Your task to perform on an android device: Is it going to rain this weekend? Image 0: 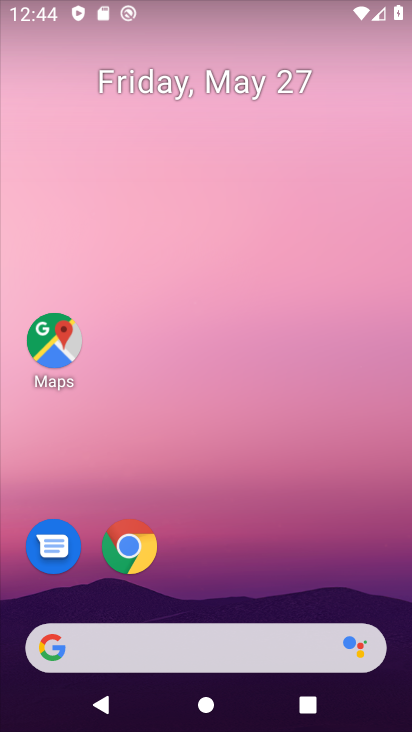
Step 0: drag from (235, 639) to (230, 269)
Your task to perform on an android device: Is it going to rain this weekend? Image 1: 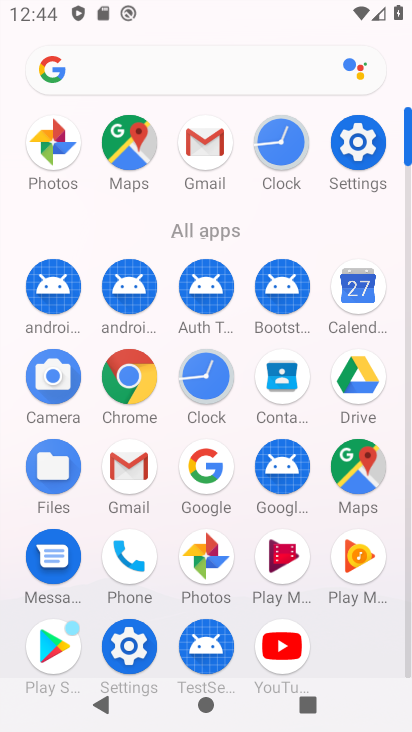
Step 1: click (131, 75)
Your task to perform on an android device: Is it going to rain this weekend? Image 2: 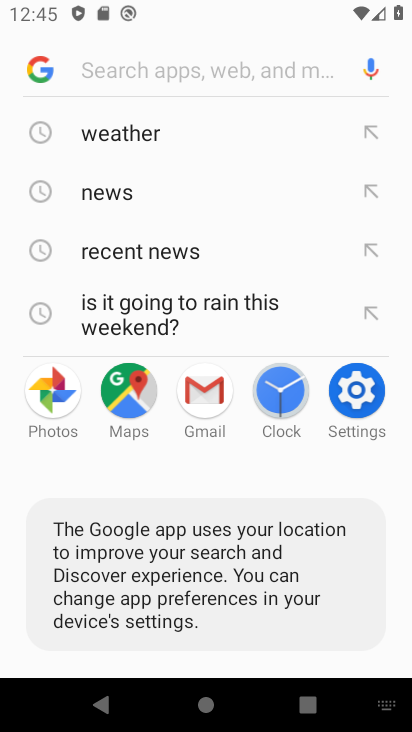
Step 2: click (133, 140)
Your task to perform on an android device: Is it going to rain this weekend? Image 3: 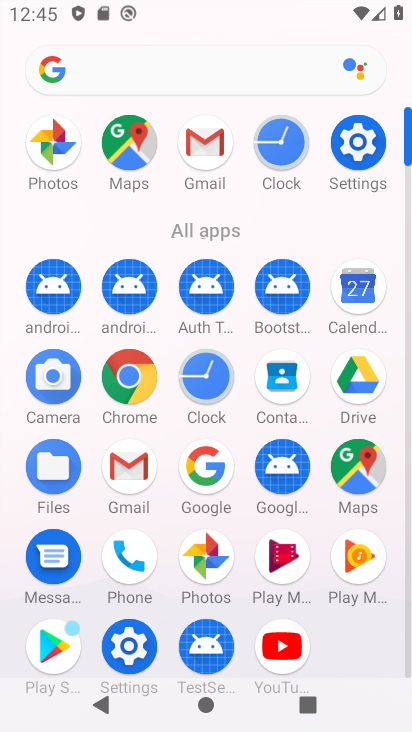
Step 3: click (167, 74)
Your task to perform on an android device: Is it going to rain this weekend? Image 4: 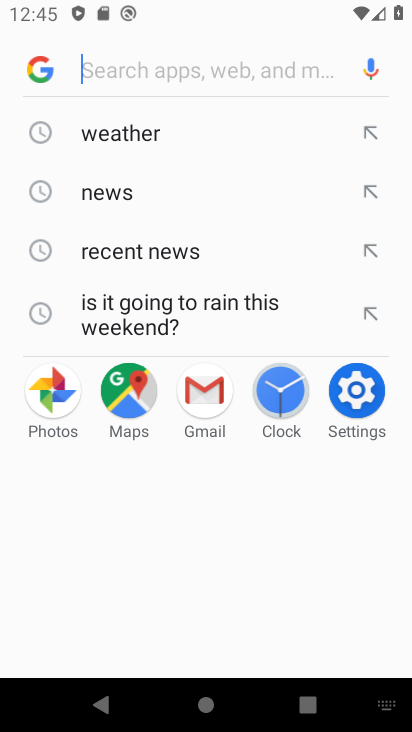
Step 4: click (133, 133)
Your task to perform on an android device: Is it going to rain this weekend? Image 5: 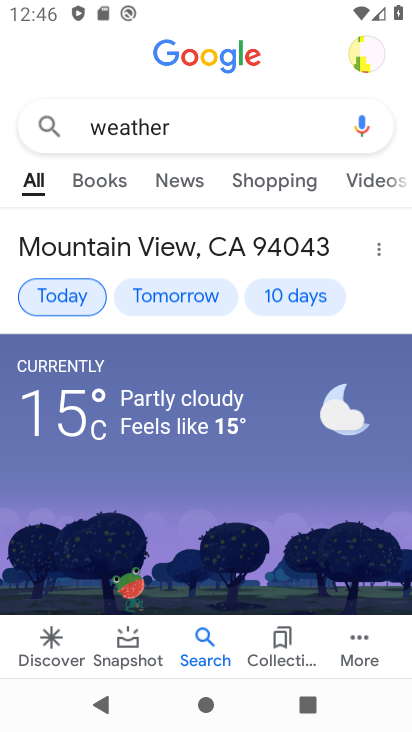
Step 5: click (308, 291)
Your task to perform on an android device: Is it going to rain this weekend? Image 6: 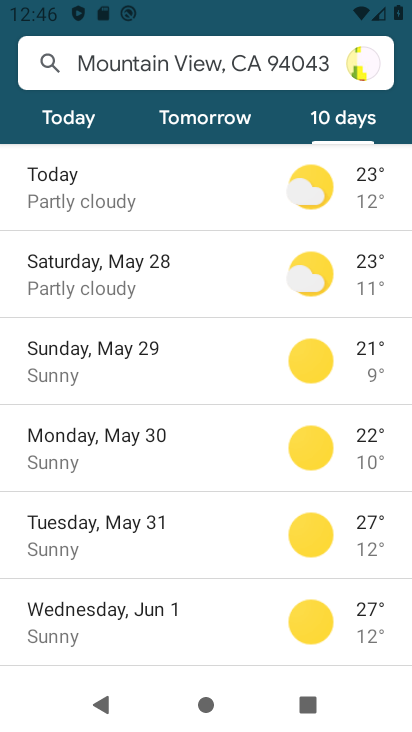
Step 6: task complete